Your task to perform on an android device: Open battery settings Image 0: 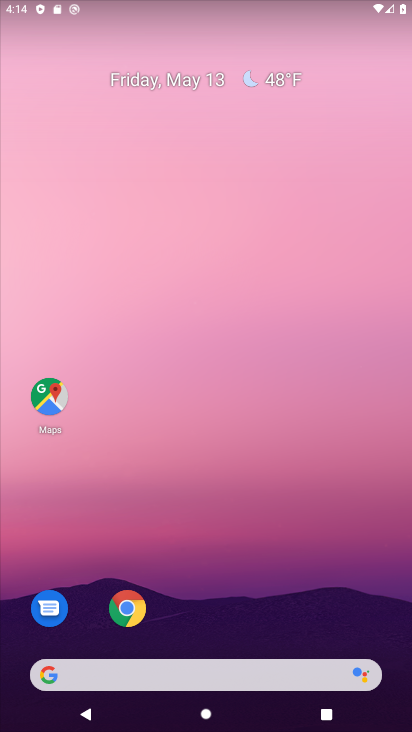
Step 0: drag from (239, 722) to (239, 215)
Your task to perform on an android device: Open battery settings Image 1: 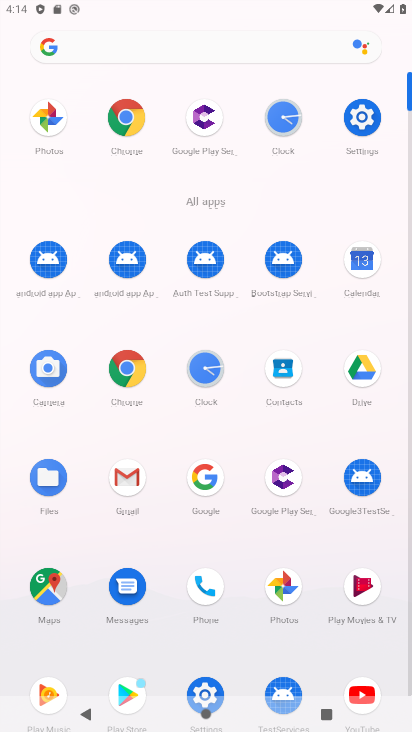
Step 1: click (355, 117)
Your task to perform on an android device: Open battery settings Image 2: 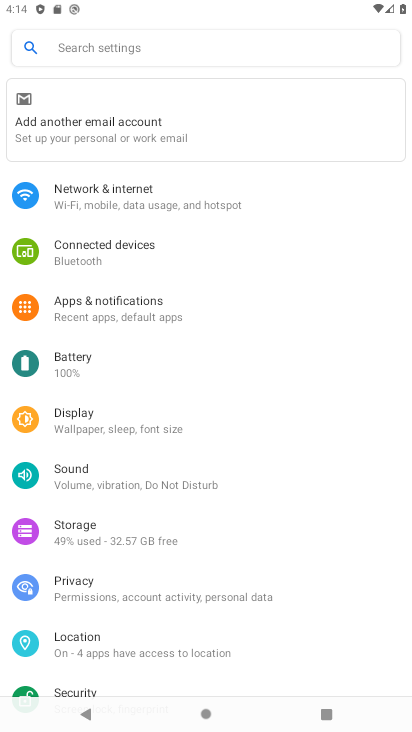
Step 2: click (66, 363)
Your task to perform on an android device: Open battery settings Image 3: 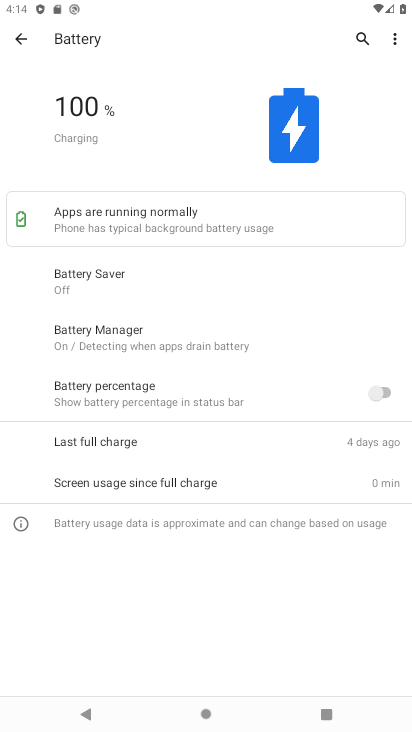
Step 3: task complete